Your task to perform on an android device: What's the weather going to be tomorrow? Image 0: 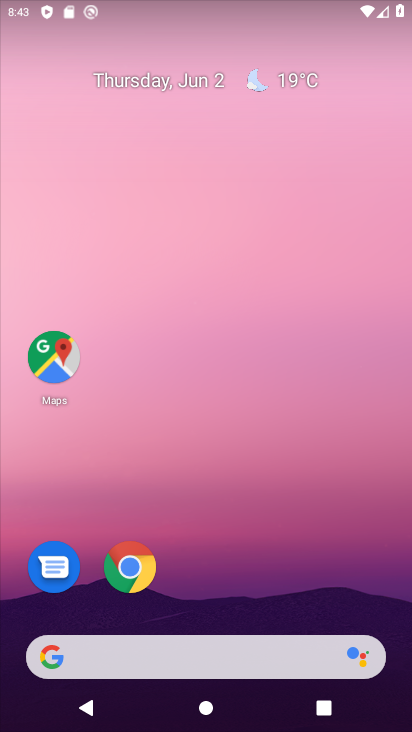
Step 0: press home button
Your task to perform on an android device: What's the weather going to be tomorrow? Image 1: 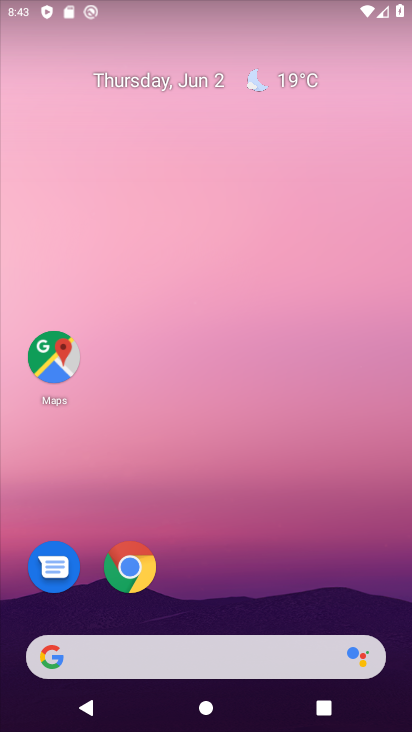
Step 1: click (280, 74)
Your task to perform on an android device: What's the weather going to be tomorrow? Image 2: 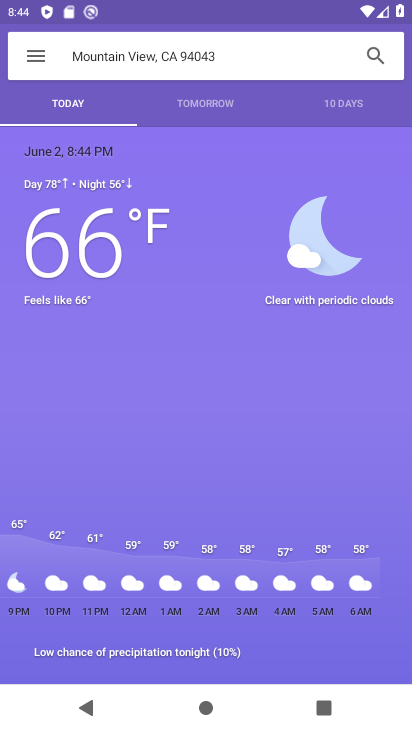
Step 2: click (202, 105)
Your task to perform on an android device: What's the weather going to be tomorrow? Image 3: 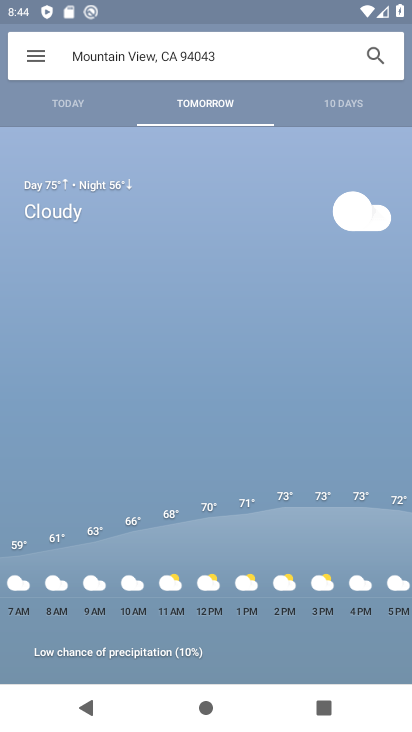
Step 3: drag from (326, 583) to (16, 595)
Your task to perform on an android device: What's the weather going to be tomorrow? Image 4: 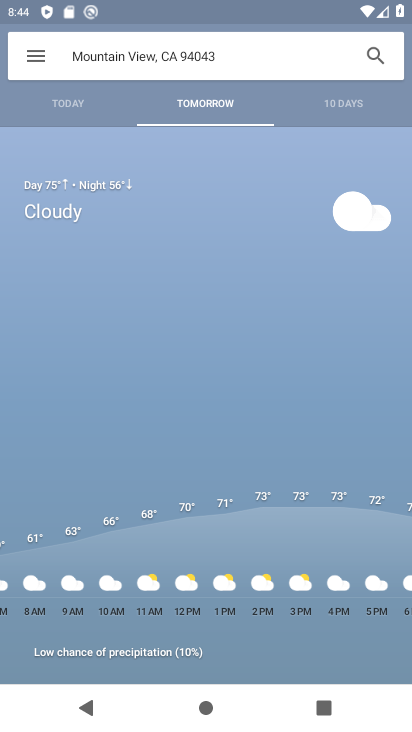
Step 4: drag from (369, 587) to (126, 593)
Your task to perform on an android device: What's the weather going to be tomorrow? Image 5: 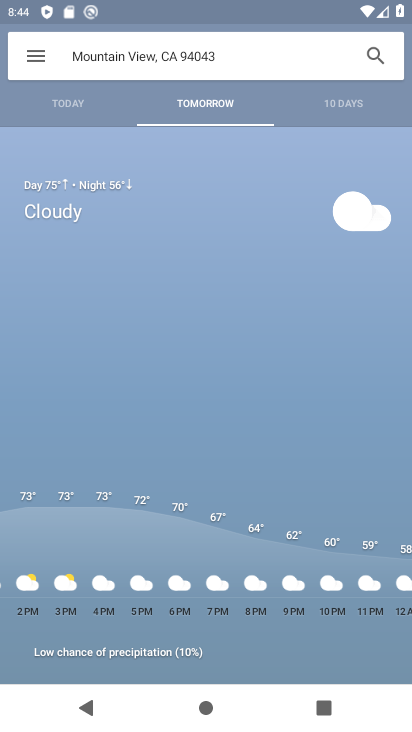
Step 5: drag from (331, 592) to (193, 591)
Your task to perform on an android device: What's the weather going to be tomorrow? Image 6: 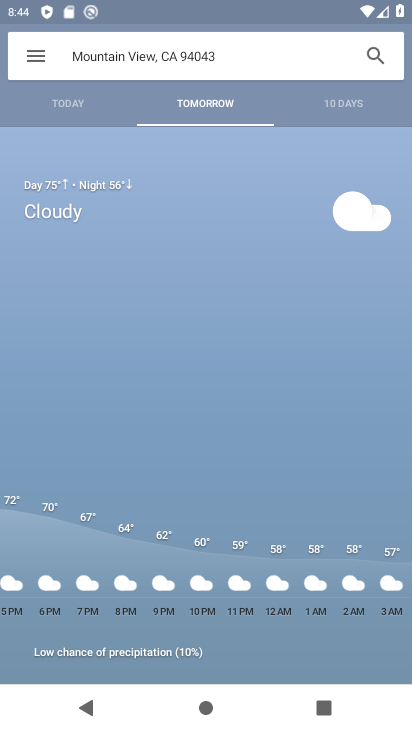
Step 6: press home button
Your task to perform on an android device: What's the weather going to be tomorrow? Image 7: 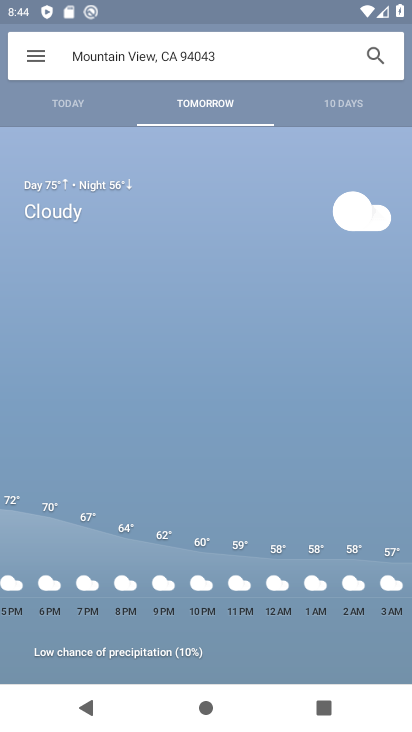
Step 7: press home button
Your task to perform on an android device: What's the weather going to be tomorrow? Image 8: 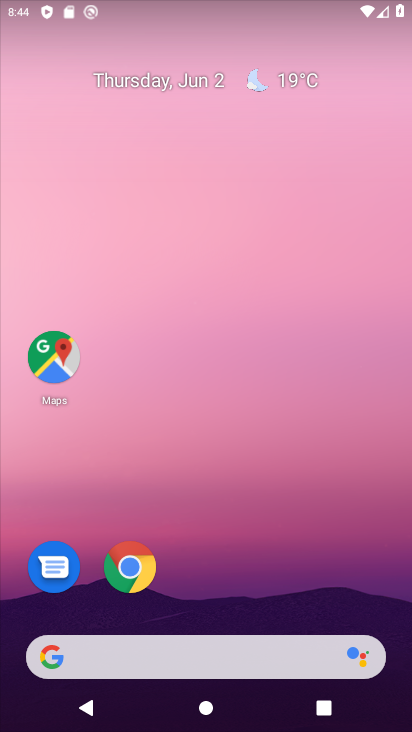
Step 8: press home button
Your task to perform on an android device: What's the weather going to be tomorrow? Image 9: 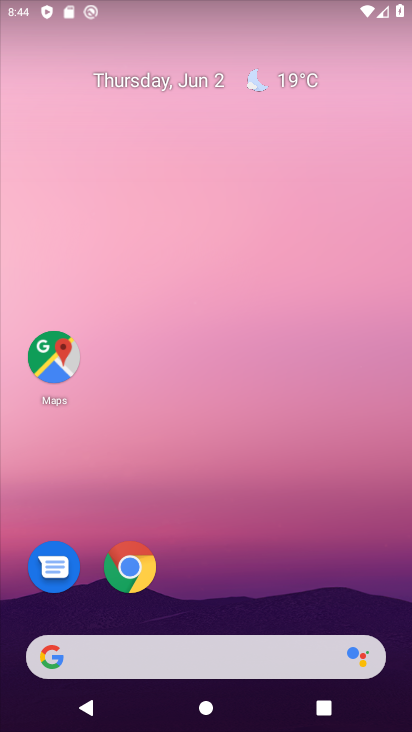
Step 9: click (283, 73)
Your task to perform on an android device: What's the weather going to be tomorrow? Image 10: 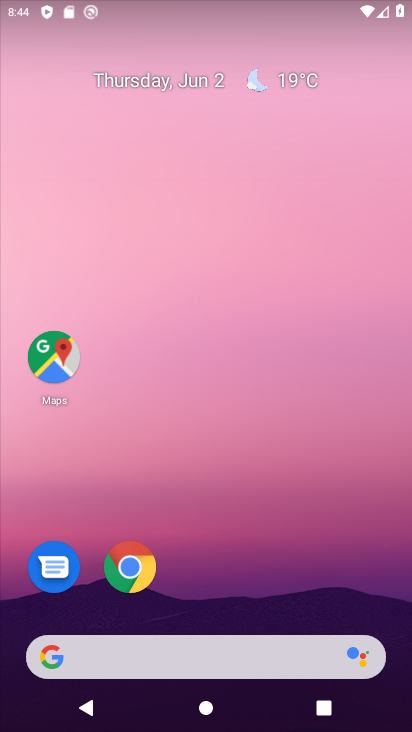
Step 10: click (298, 77)
Your task to perform on an android device: What's the weather going to be tomorrow? Image 11: 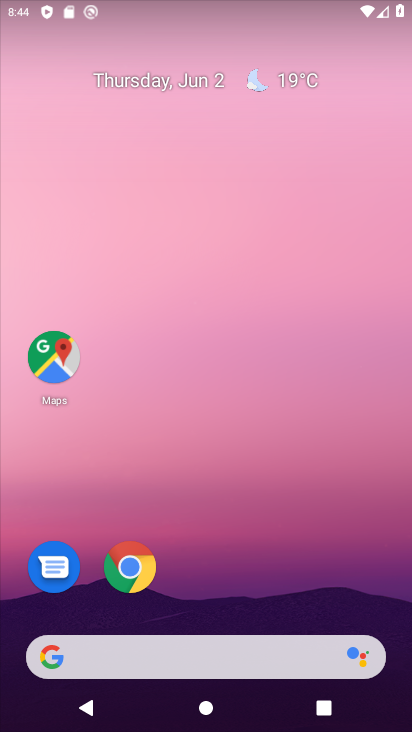
Step 11: click (290, 79)
Your task to perform on an android device: What's the weather going to be tomorrow? Image 12: 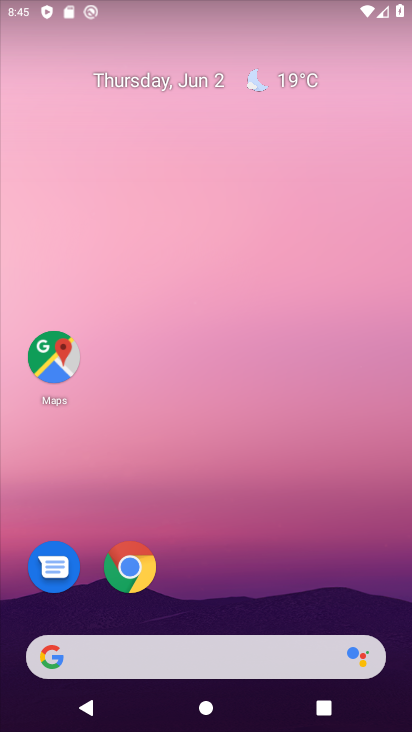
Step 12: click (258, 82)
Your task to perform on an android device: What's the weather going to be tomorrow? Image 13: 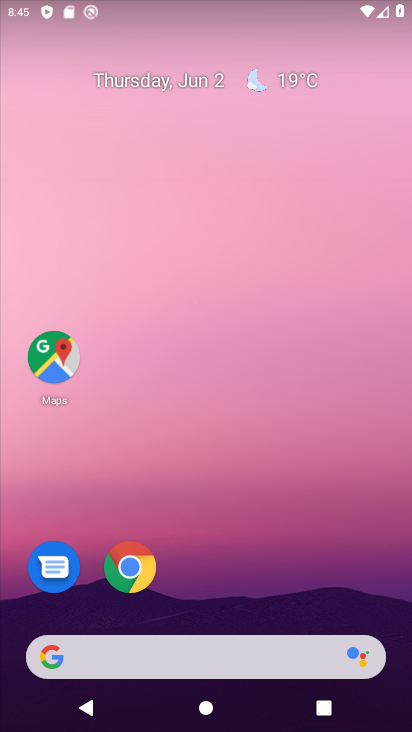
Step 13: click (267, 78)
Your task to perform on an android device: What's the weather going to be tomorrow? Image 14: 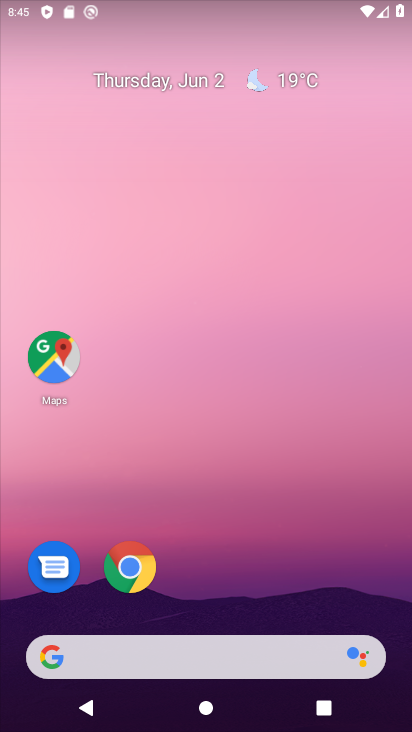
Step 14: click (288, 73)
Your task to perform on an android device: What's the weather going to be tomorrow? Image 15: 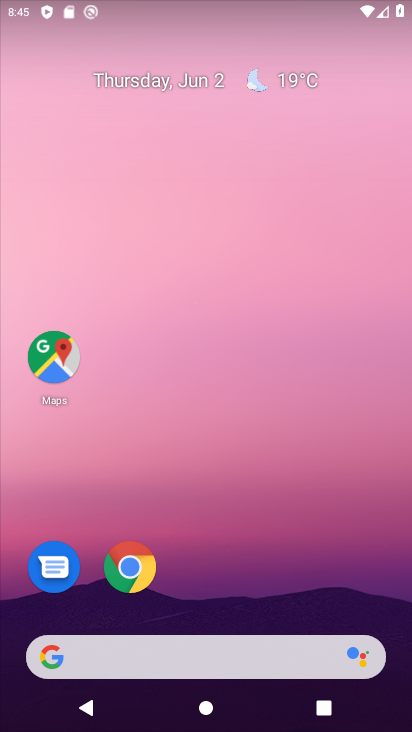
Step 15: drag from (19, 240) to (404, 251)
Your task to perform on an android device: What's the weather going to be tomorrow? Image 16: 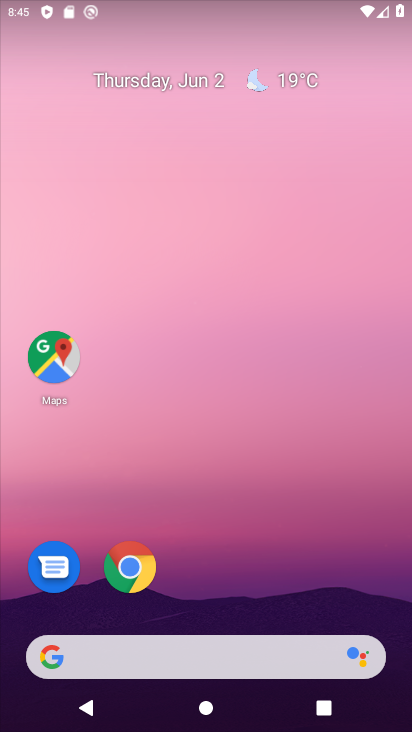
Step 16: drag from (11, 249) to (407, 265)
Your task to perform on an android device: What's the weather going to be tomorrow? Image 17: 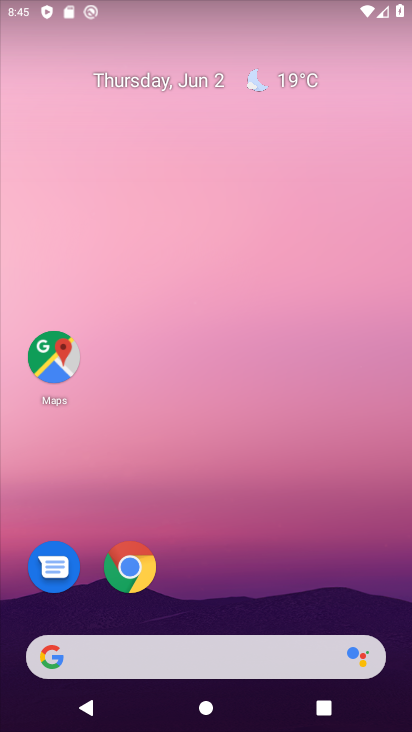
Step 17: drag from (18, 478) to (409, 503)
Your task to perform on an android device: What's the weather going to be tomorrow? Image 18: 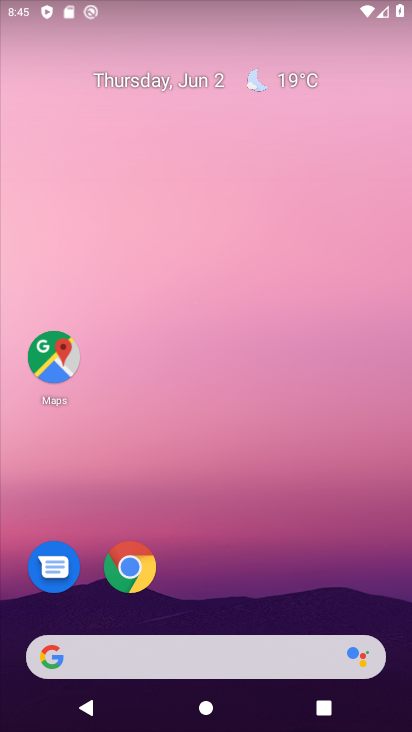
Step 18: click (195, 657)
Your task to perform on an android device: What's the weather going to be tomorrow? Image 19: 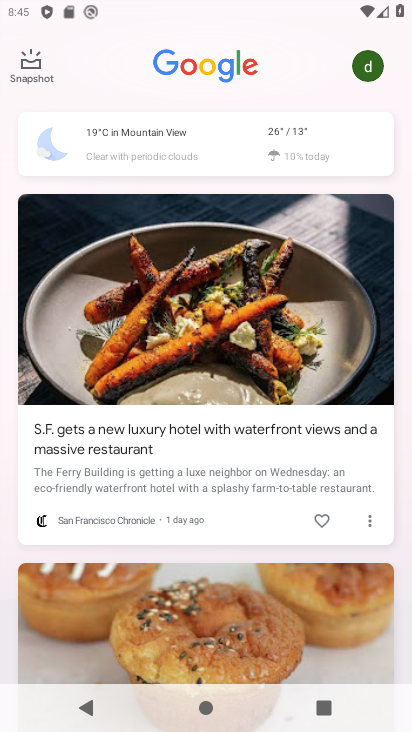
Step 19: click (268, 142)
Your task to perform on an android device: What's the weather going to be tomorrow? Image 20: 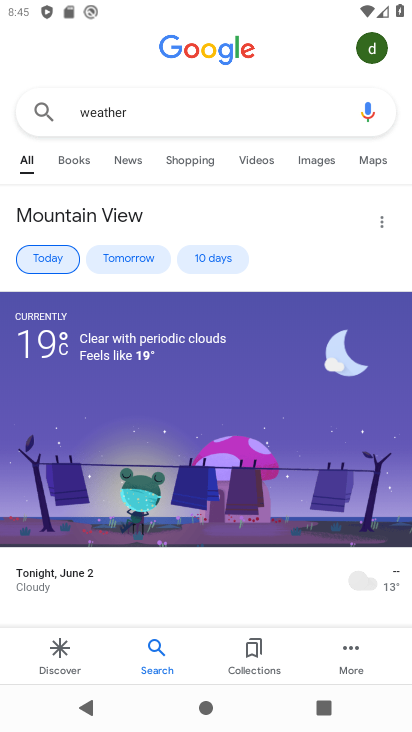
Step 20: click (130, 255)
Your task to perform on an android device: What's the weather going to be tomorrow? Image 21: 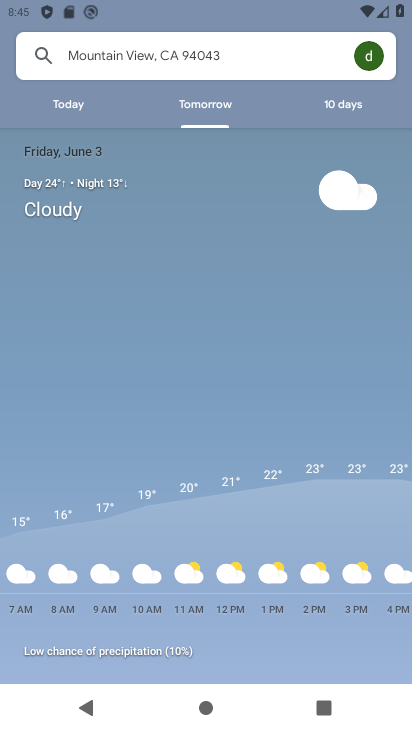
Step 21: task complete